Your task to perform on an android device: change the clock display to digital Image 0: 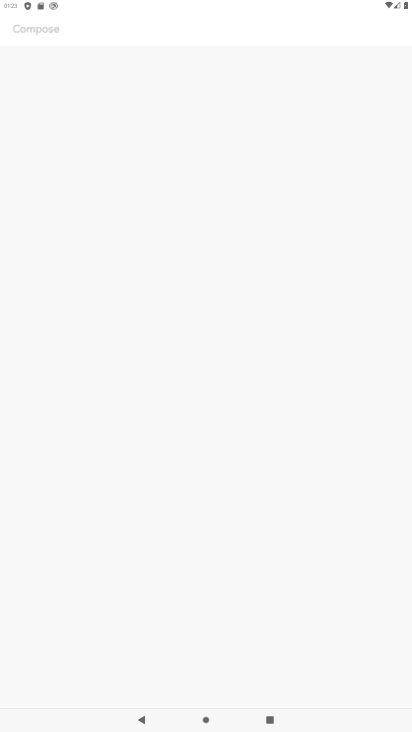
Step 0: press home button
Your task to perform on an android device: change the clock display to digital Image 1: 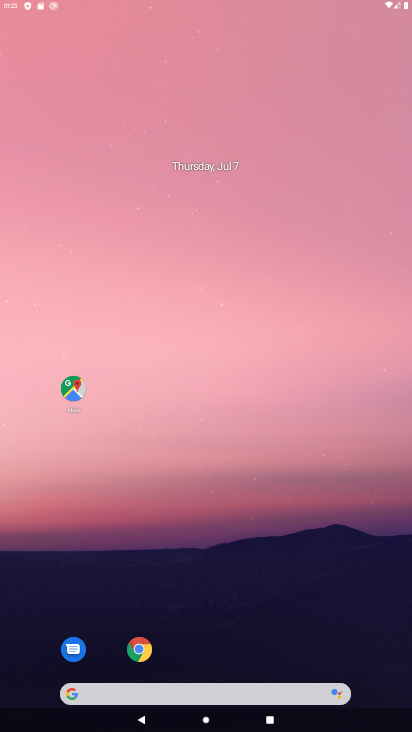
Step 1: drag from (279, 658) to (224, 177)
Your task to perform on an android device: change the clock display to digital Image 2: 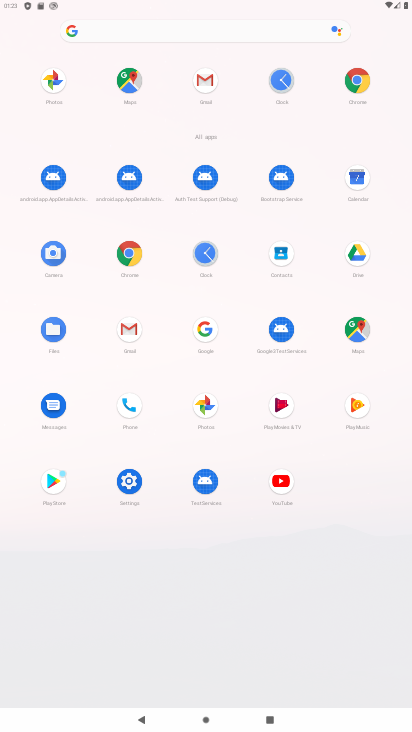
Step 2: click (190, 254)
Your task to perform on an android device: change the clock display to digital Image 3: 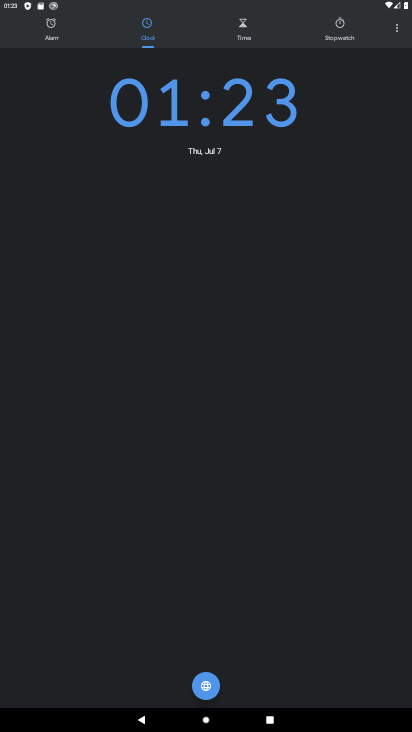
Step 3: click (401, 29)
Your task to perform on an android device: change the clock display to digital Image 4: 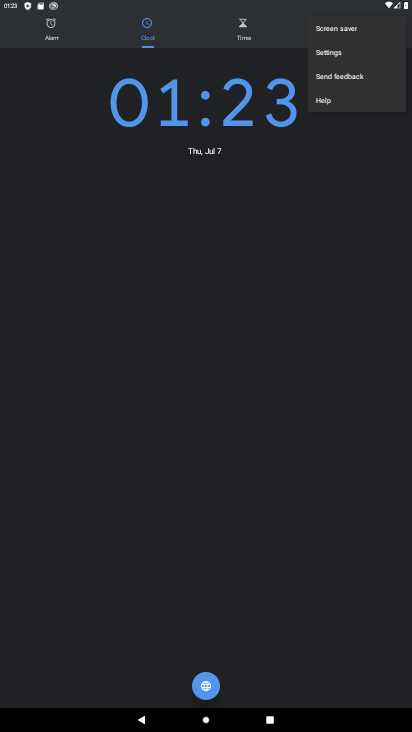
Step 4: click (339, 53)
Your task to perform on an android device: change the clock display to digital Image 5: 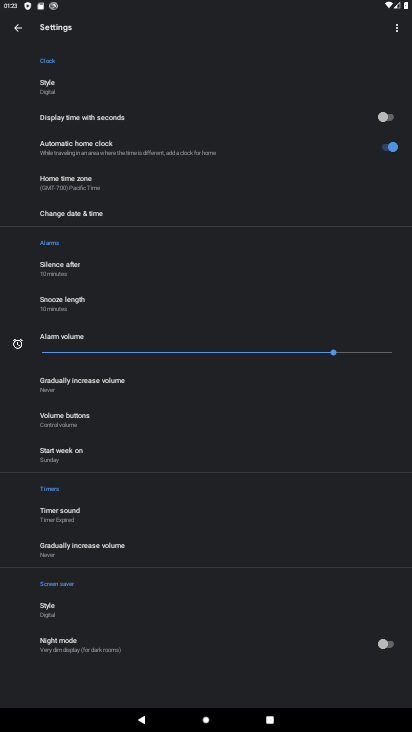
Step 5: click (43, 92)
Your task to perform on an android device: change the clock display to digital Image 6: 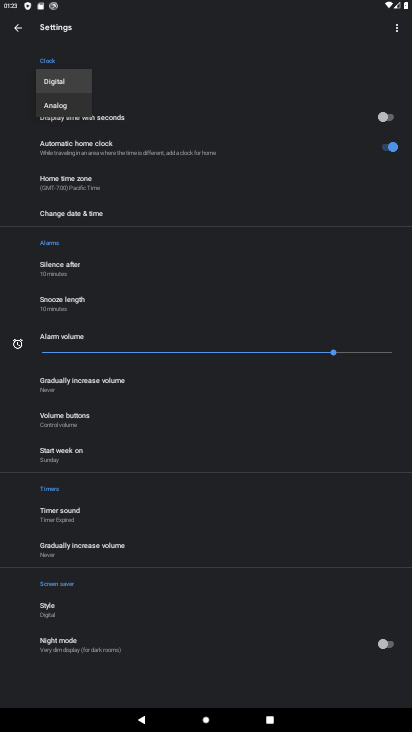
Step 6: click (51, 84)
Your task to perform on an android device: change the clock display to digital Image 7: 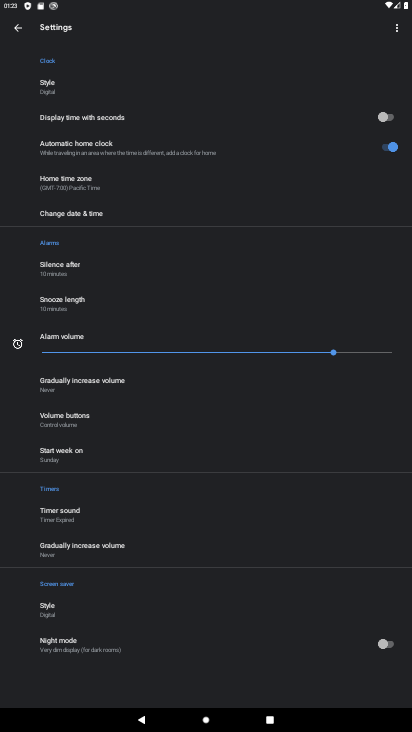
Step 7: task complete